Your task to perform on an android device: open a new tab in the chrome app Image 0: 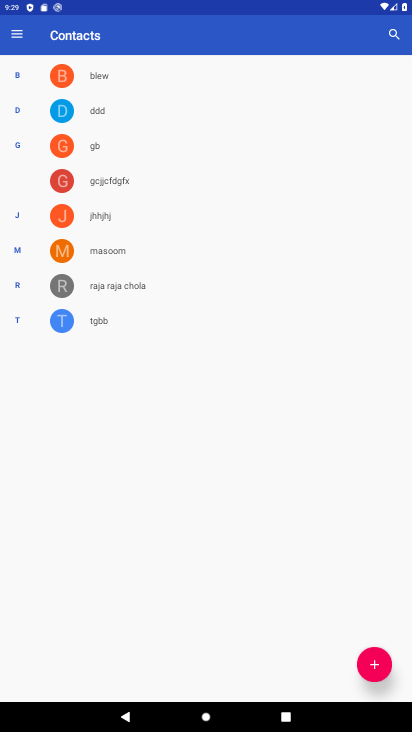
Step 0: press home button
Your task to perform on an android device: open a new tab in the chrome app Image 1: 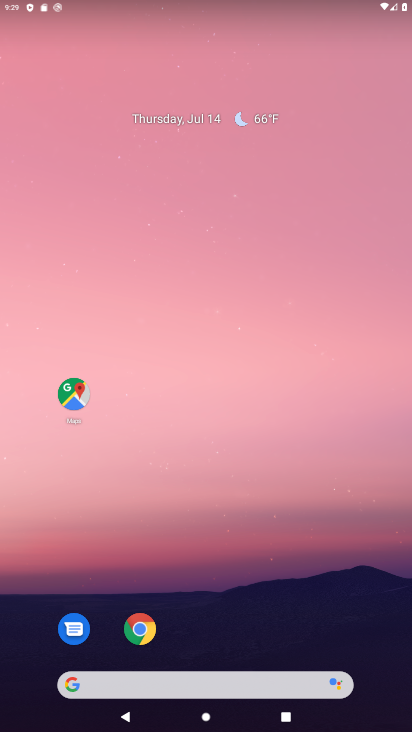
Step 1: click (148, 630)
Your task to perform on an android device: open a new tab in the chrome app Image 2: 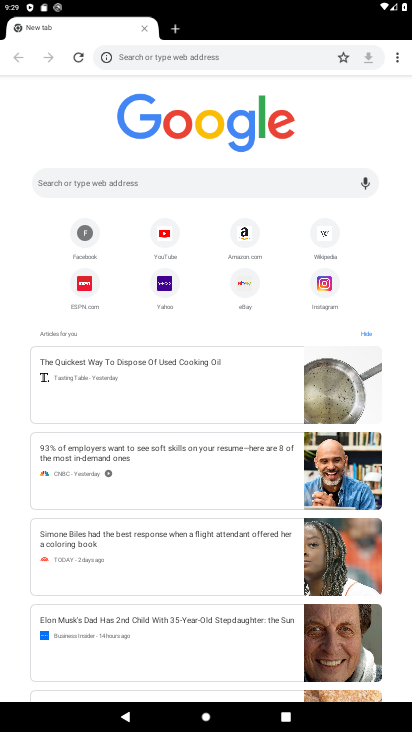
Step 2: click (396, 53)
Your task to perform on an android device: open a new tab in the chrome app Image 3: 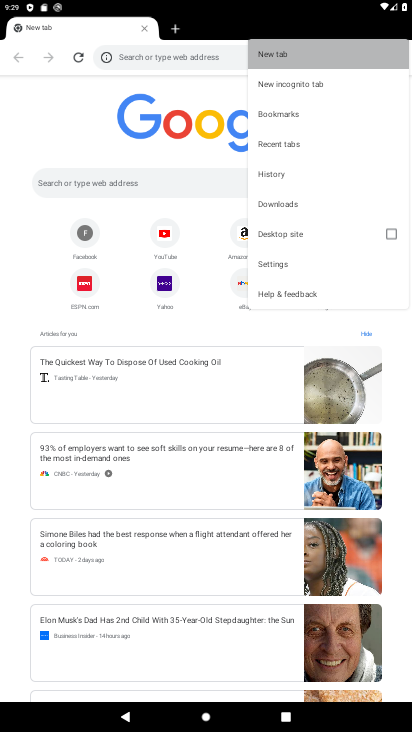
Step 3: click (346, 62)
Your task to perform on an android device: open a new tab in the chrome app Image 4: 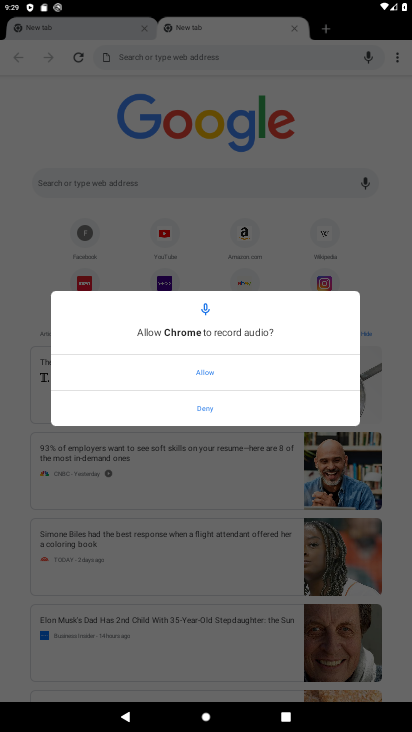
Step 4: click (200, 369)
Your task to perform on an android device: open a new tab in the chrome app Image 5: 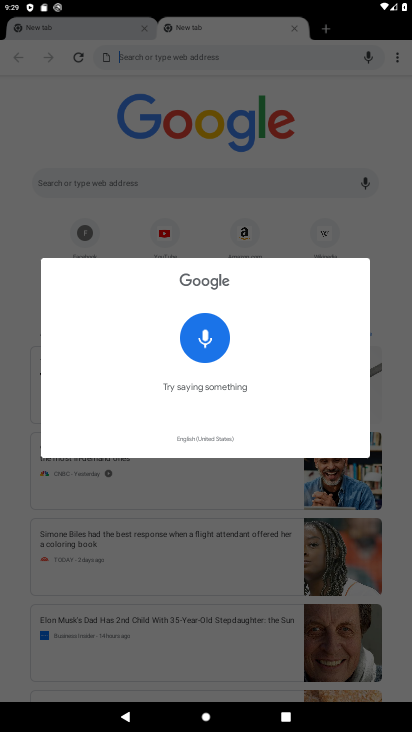
Step 5: task complete